Your task to perform on an android device: see tabs open on other devices in the chrome app Image 0: 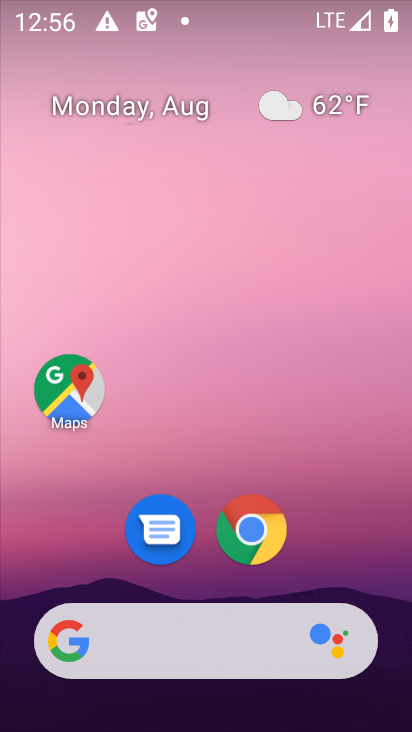
Step 0: click (244, 543)
Your task to perform on an android device: see tabs open on other devices in the chrome app Image 1: 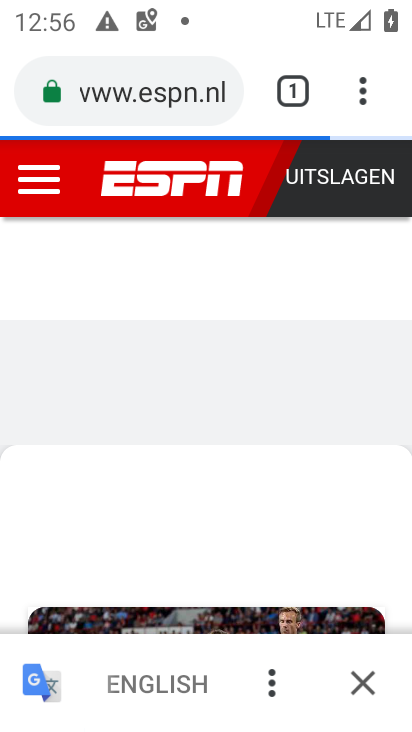
Step 1: click (278, 98)
Your task to perform on an android device: see tabs open on other devices in the chrome app Image 2: 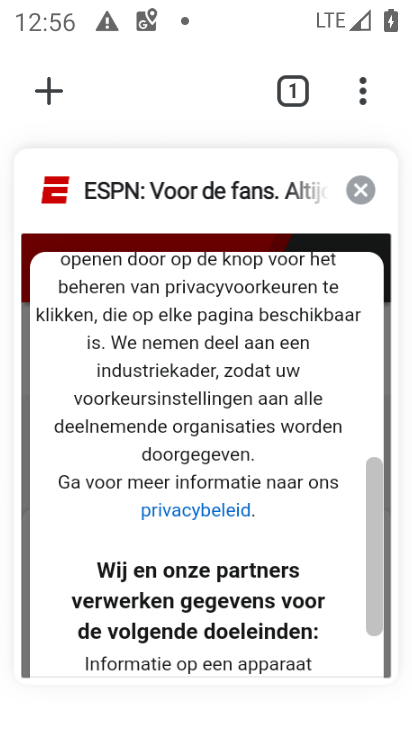
Step 2: task complete